Your task to perform on an android device: check android version Image 0: 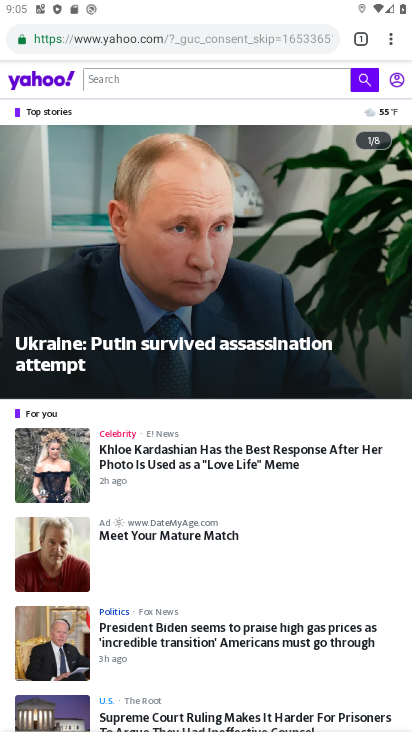
Step 0: press home button
Your task to perform on an android device: check android version Image 1: 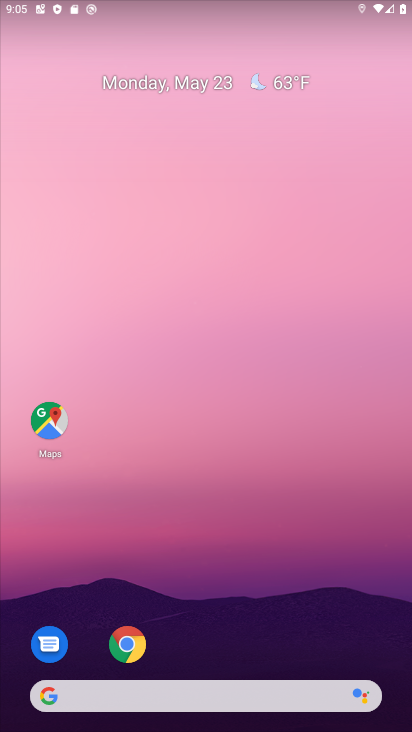
Step 1: drag from (225, 656) to (166, 82)
Your task to perform on an android device: check android version Image 2: 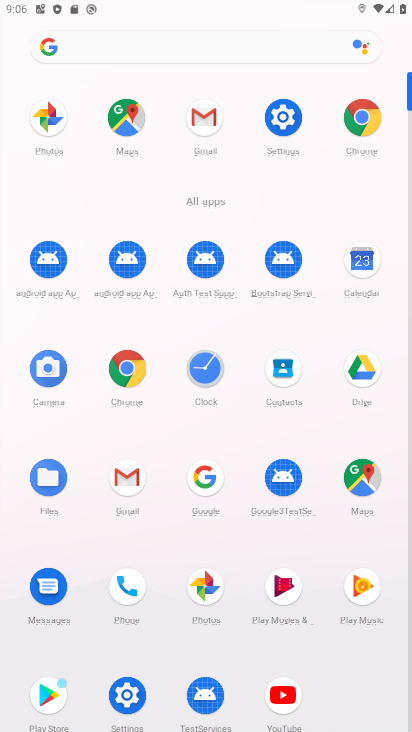
Step 2: click (285, 110)
Your task to perform on an android device: check android version Image 3: 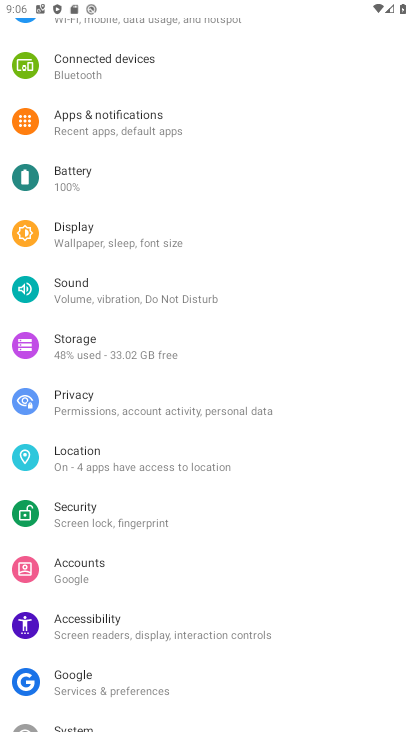
Step 3: drag from (113, 665) to (112, 117)
Your task to perform on an android device: check android version Image 4: 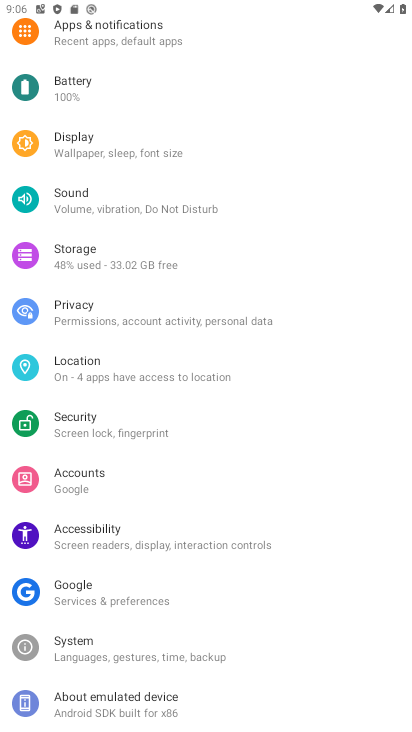
Step 4: click (156, 705)
Your task to perform on an android device: check android version Image 5: 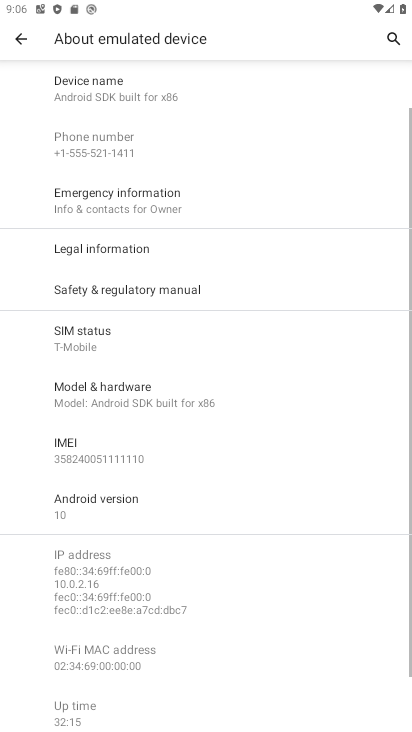
Step 5: click (102, 507)
Your task to perform on an android device: check android version Image 6: 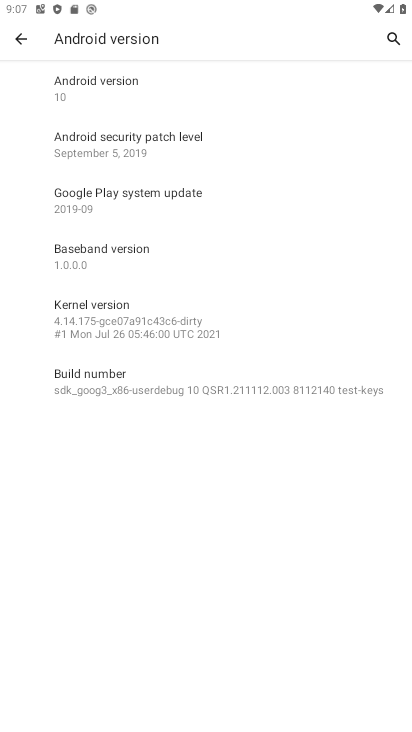
Step 6: task complete